Your task to perform on an android device: change the clock display to digital Image 0: 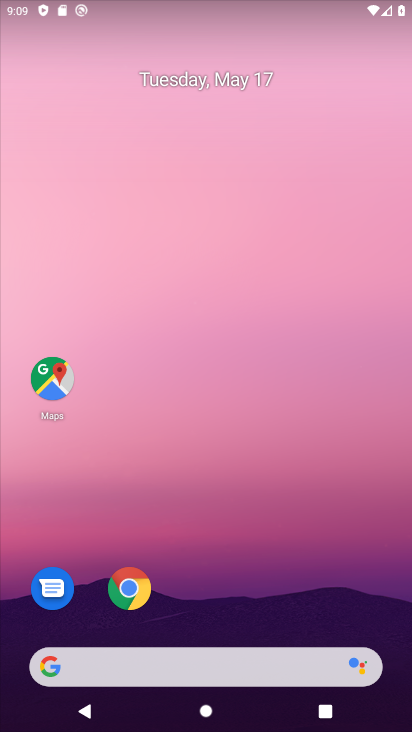
Step 0: drag from (227, 661) to (165, 69)
Your task to perform on an android device: change the clock display to digital Image 1: 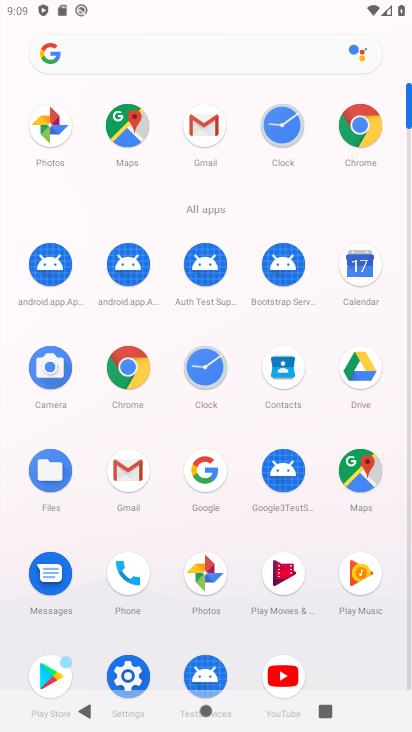
Step 1: click (116, 668)
Your task to perform on an android device: change the clock display to digital Image 2: 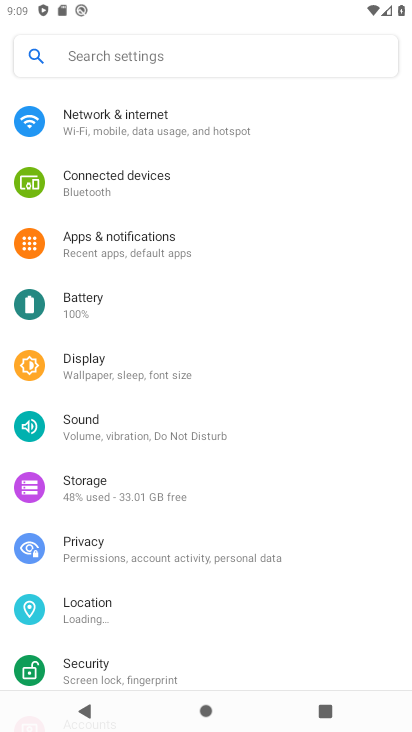
Step 2: press home button
Your task to perform on an android device: change the clock display to digital Image 3: 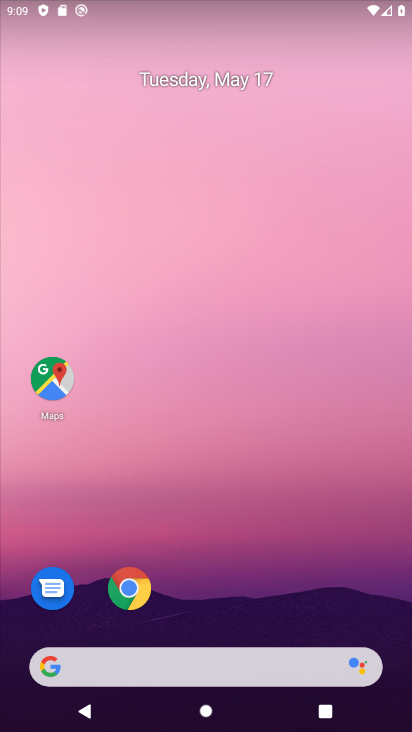
Step 3: drag from (234, 637) to (170, 67)
Your task to perform on an android device: change the clock display to digital Image 4: 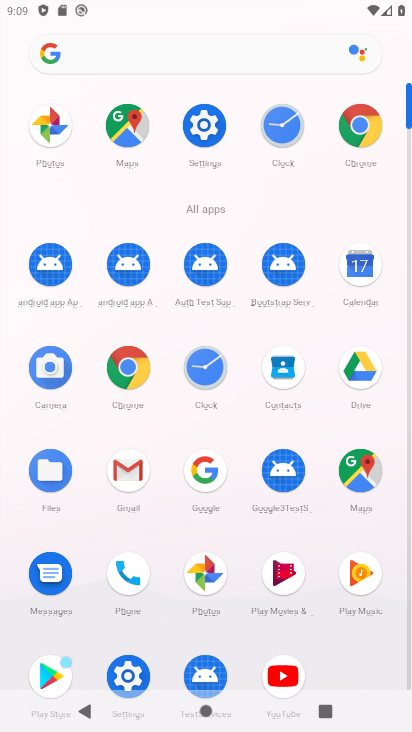
Step 4: click (204, 383)
Your task to perform on an android device: change the clock display to digital Image 5: 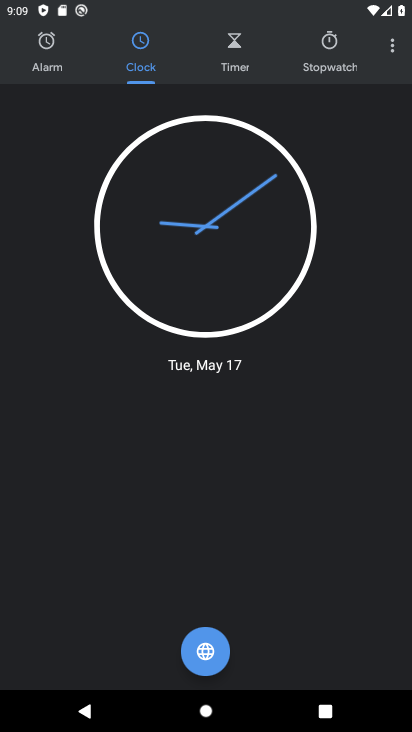
Step 5: click (390, 57)
Your task to perform on an android device: change the clock display to digital Image 6: 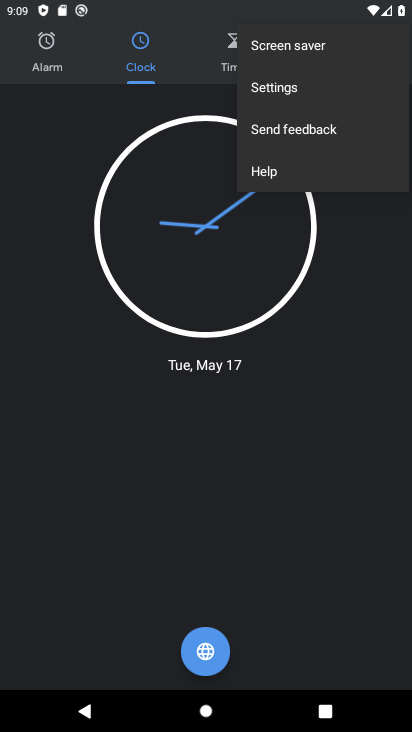
Step 6: click (262, 92)
Your task to perform on an android device: change the clock display to digital Image 7: 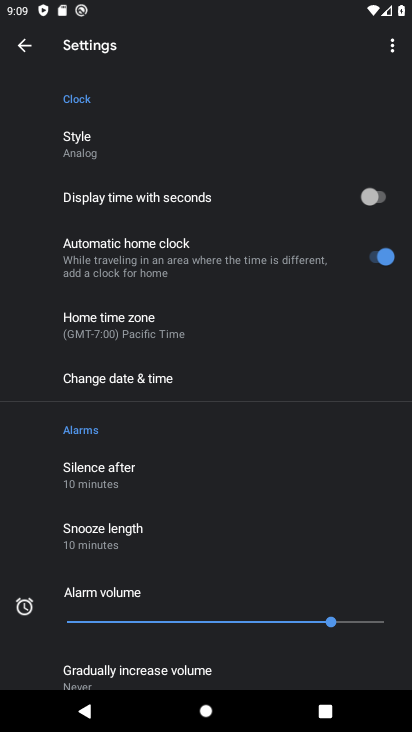
Step 7: click (121, 134)
Your task to perform on an android device: change the clock display to digital Image 8: 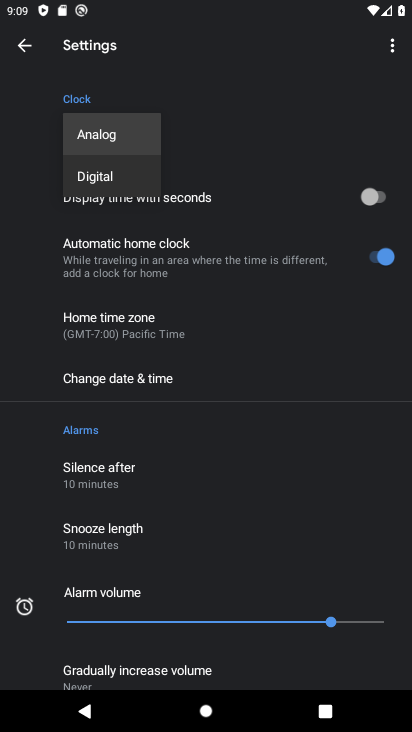
Step 8: click (119, 170)
Your task to perform on an android device: change the clock display to digital Image 9: 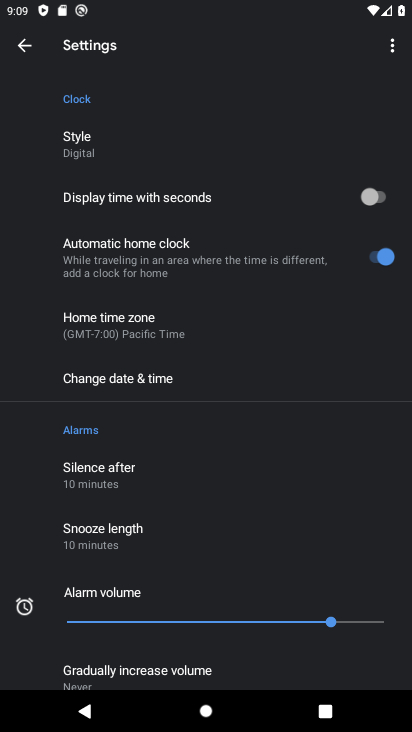
Step 9: task complete